Your task to perform on an android device: change keyboard looks Image 0: 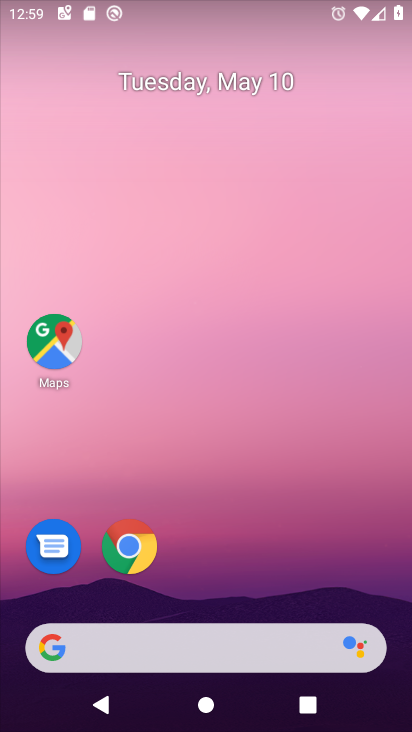
Step 0: press home button
Your task to perform on an android device: change keyboard looks Image 1: 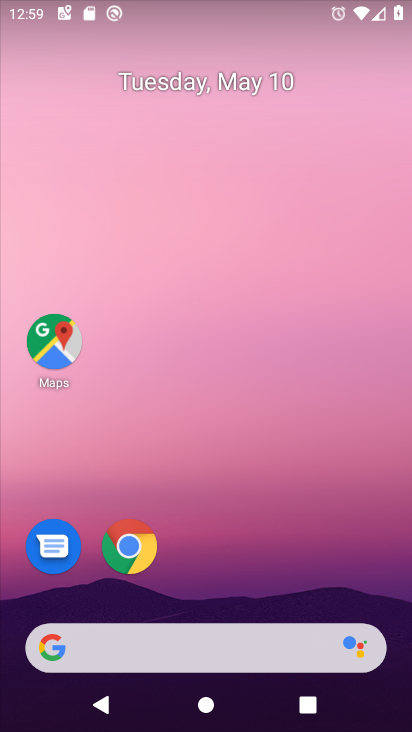
Step 1: drag from (305, 566) to (307, 6)
Your task to perform on an android device: change keyboard looks Image 2: 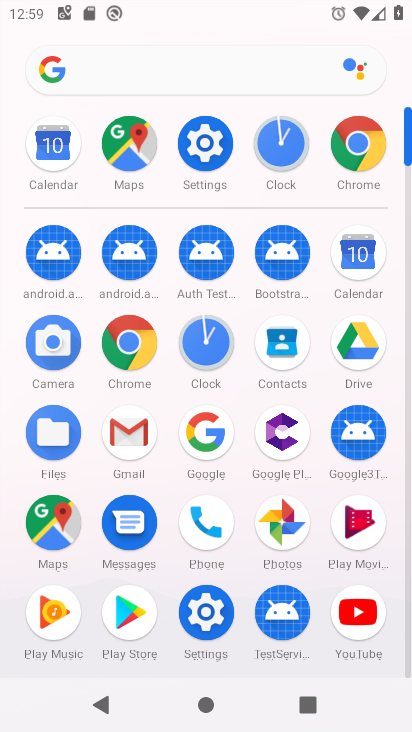
Step 2: click (207, 167)
Your task to perform on an android device: change keyboard looks Image 3: 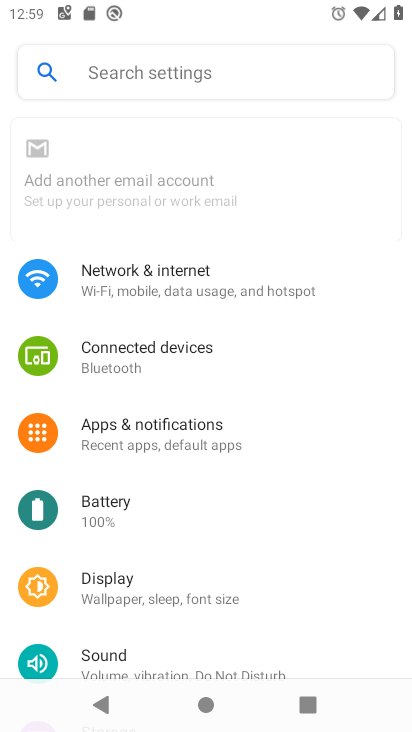
Step 3: drag from (230, 615) to (291, 137)
Your task to perform on an android device: change keyboard looks Image 4: 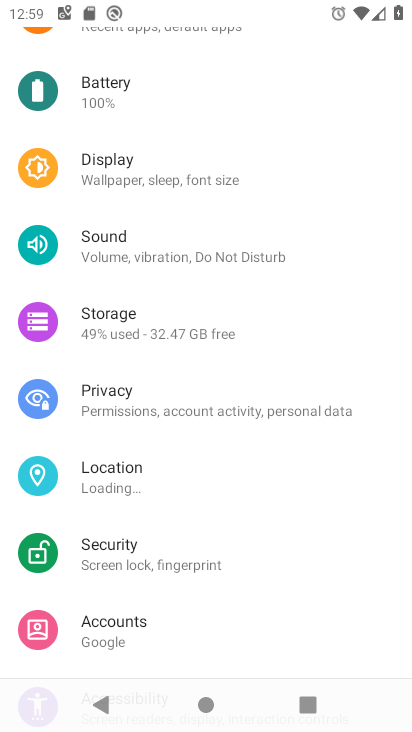
Step 4: drag from (228, 569) to (229, 136)
Your task to perform on an android device: change keyboard looks Image 5: 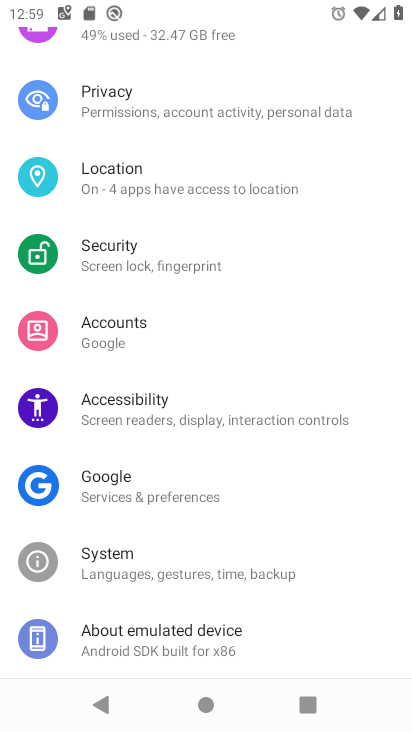
Step 5: click (103, 569)
Your task to perform on an android device: change keyboard looks Image 6: 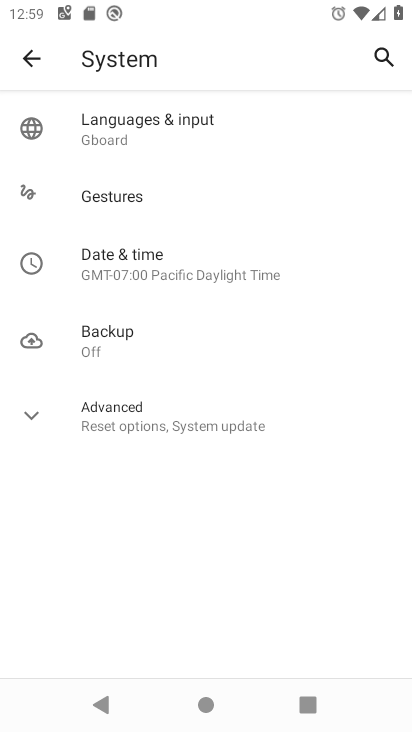
Step 6: click (193, 103)
Your task to perform on an android device: change keyboard looks Image 7: 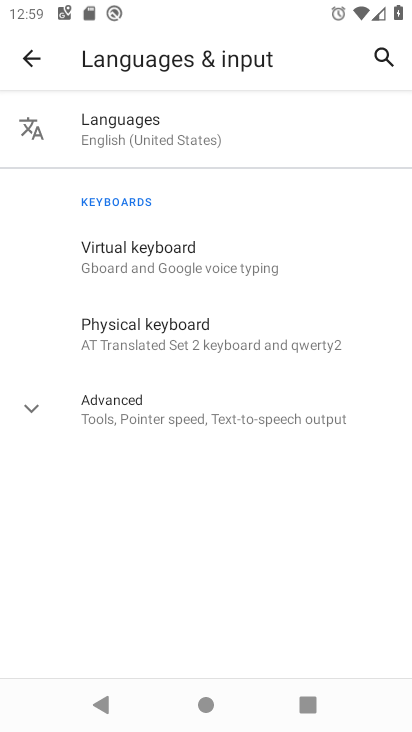
Step 7: click (161, 242)
Your task to perform on an android device: change keyboard looks Image 8: 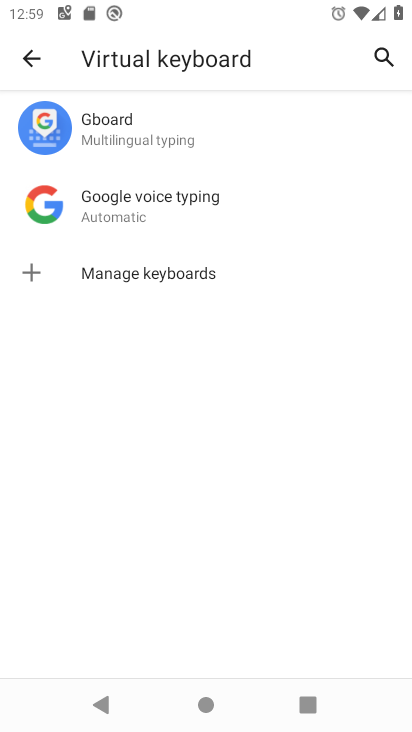
Step 8: click (162, 141)
Your task to perform on an android device: change keyboard looks Image 9: 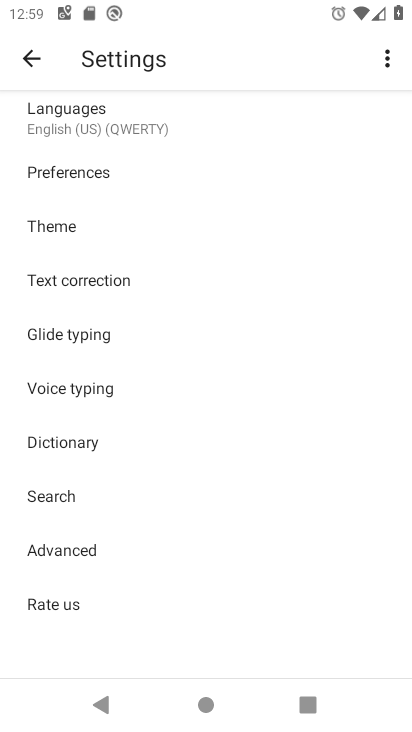
Step 9: click (133, 226)
Your task to perform on an android device: change keyboard looks Image 10: 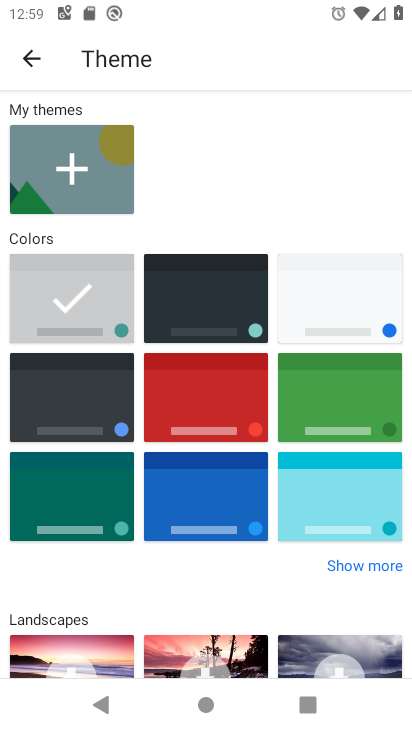
Step 10: click (207, 477)
Your task to perform on an android device: change keyboard looks Image 11: 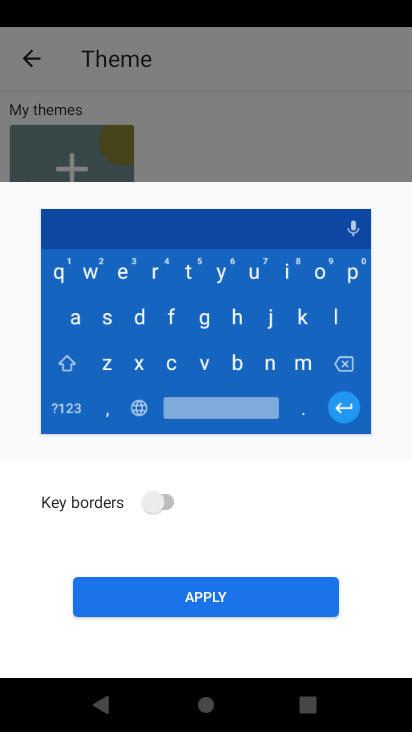
Step 11: click (171, 605)
Your task to perform on an android device: change keyboard looks Image 12: 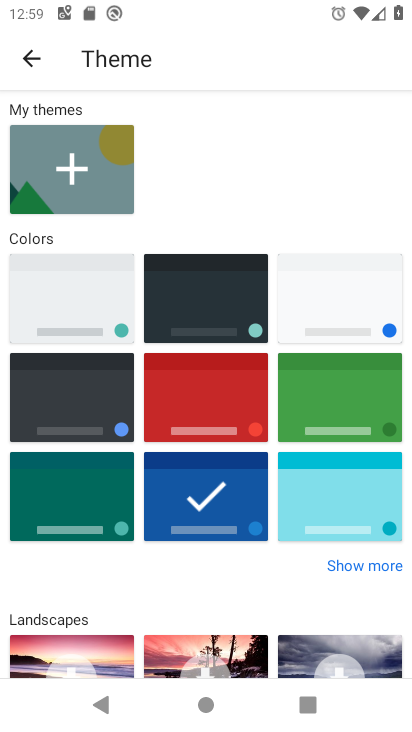
Step 12: task complete